Your task to perform on an android device: Show me recent news Image 0: 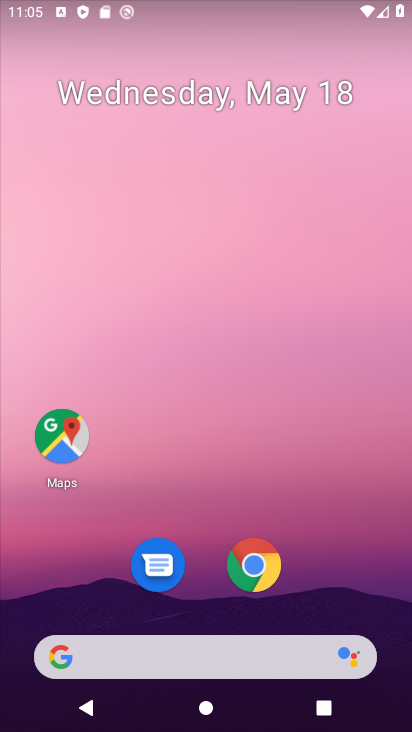
Step 0: drag from (13, 284) to (279, 288)
Your task to perform on an android device: Show me recent news Image 1: 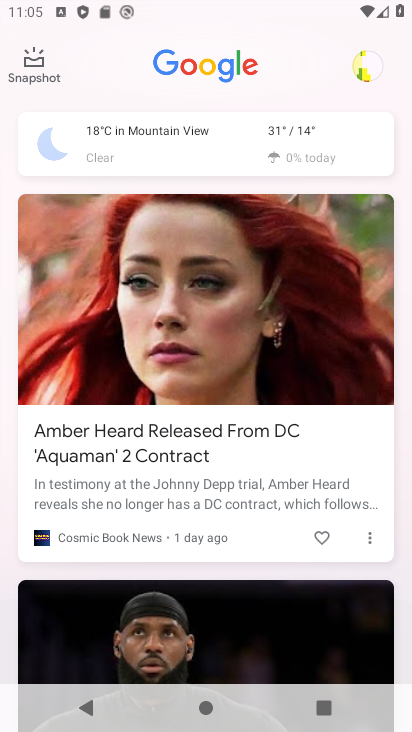
Step 1: task complete